Your task to perform on an android device: Open Chrome and go to settings Image 0: 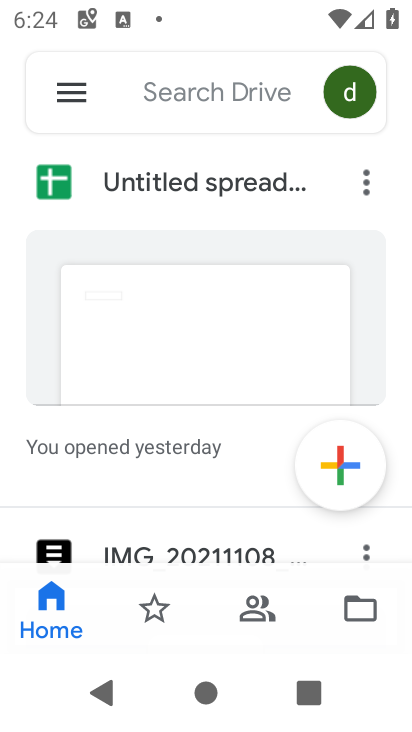
Step 0: press home button
Your task to perform on an android device: Open Chrome and go to settings Image 1: 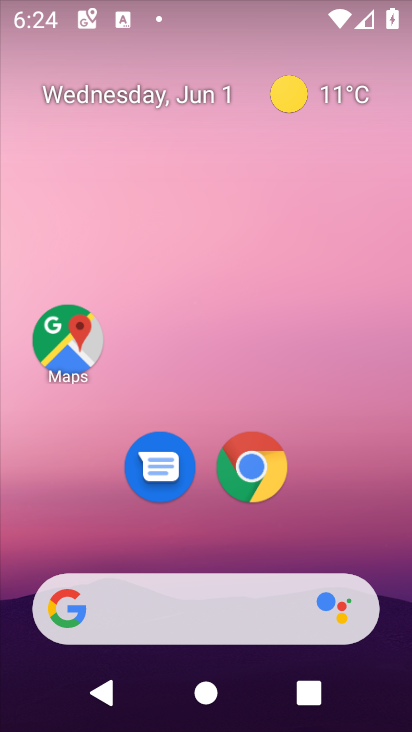
Step 1: click (246, 474)
Your task to perform on an android device: Open Chrome and go to settings Image 2: 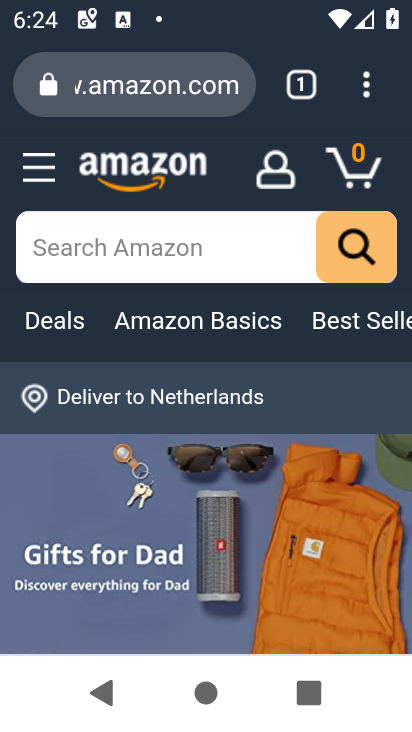
Step 2: click (360, 78)
Your task to perform on an android device: Open Chrome and go to settings Image 3: 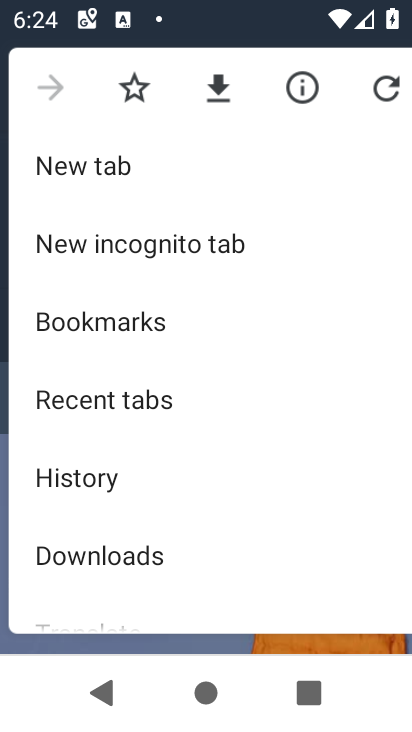
Step 3: drag from (272, 458) to (206, 83)
Your task to perform on an android device: Open Chrome and go to settings Image 4: 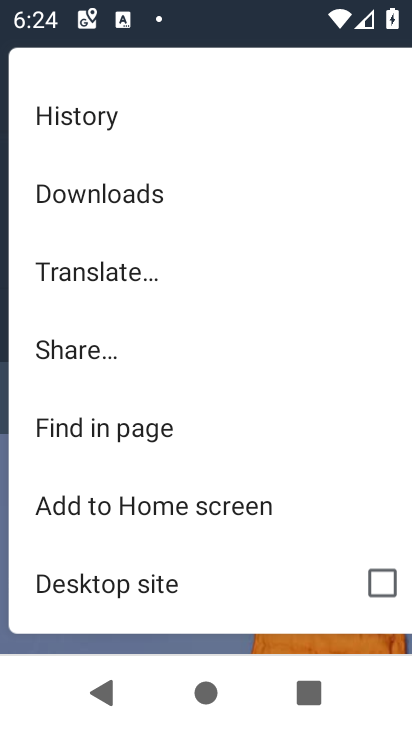
Step 4: drag from (234, 337) to (239, 107)
Your task to perform on an android device: Open Chrome and go to settings Image 5: 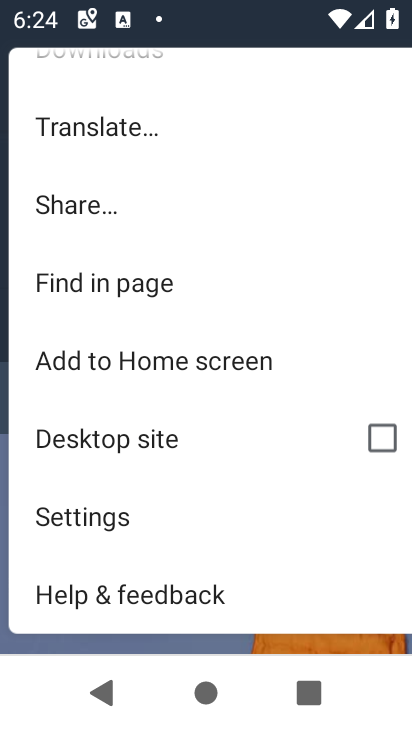
Step 5: click (115, 524)
Your task to perform on an android device: Open Chrome and go to settings Image 6: 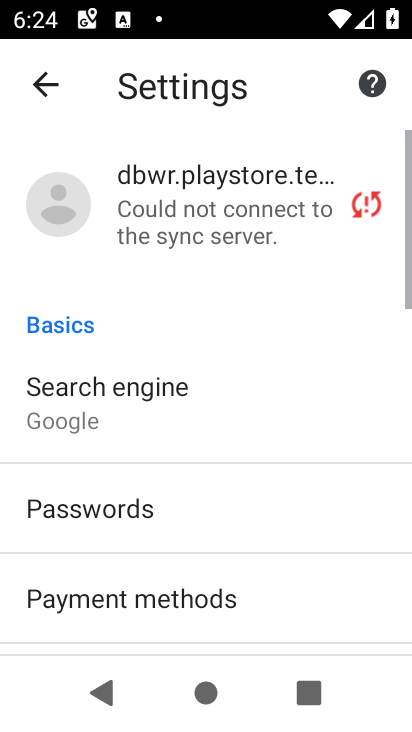
Step 6: task complete